Your task to perform on an android device: refresh tabs in the chrome app Image 0: 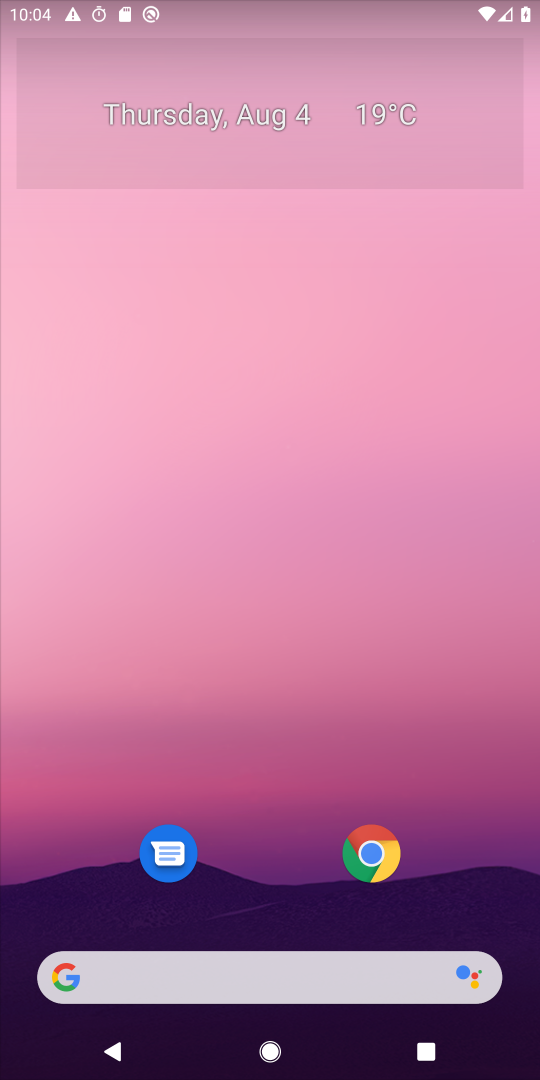
Step 0: click (390, 845)
Your task to perform on an android device: refresh tabs in the chrome app Image 1: 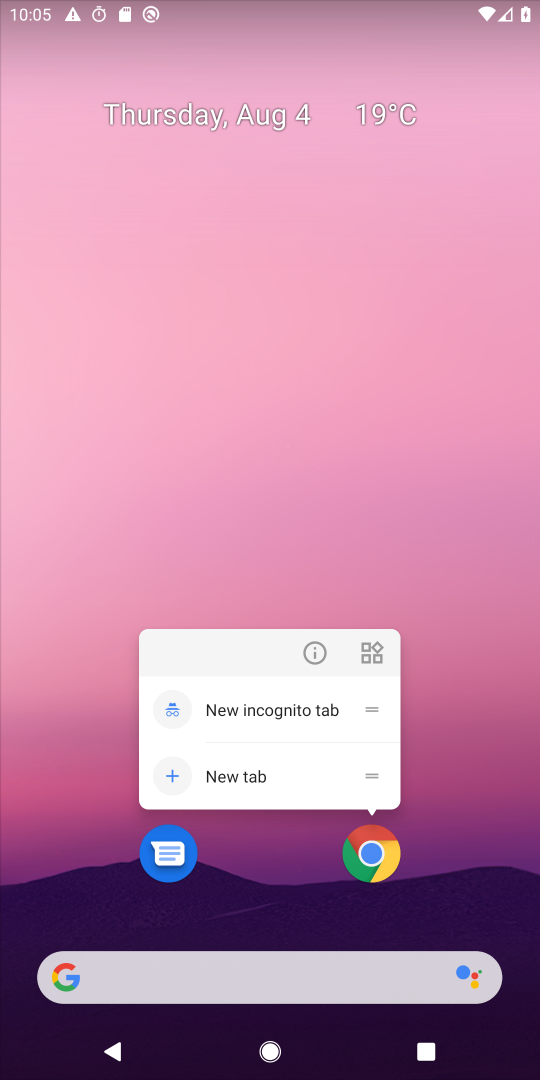
Step 1: click (390, 845)
Your task to perform on an android device: refresh tabs in the chrome app Image 2: 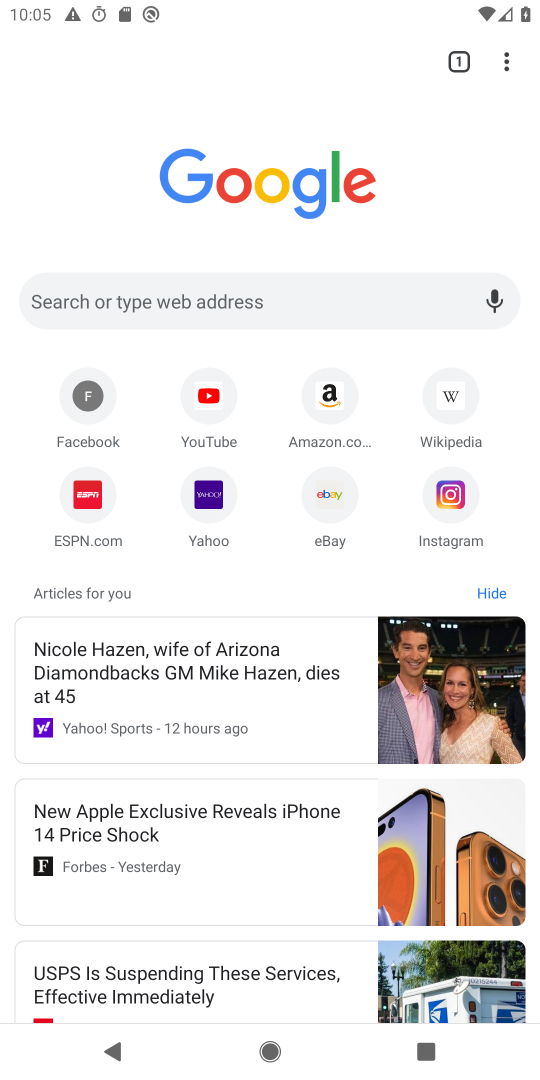
Step 2: click (514, 51)
Your task to perform on an android device: refresh tabs in the chrome app Image 3: 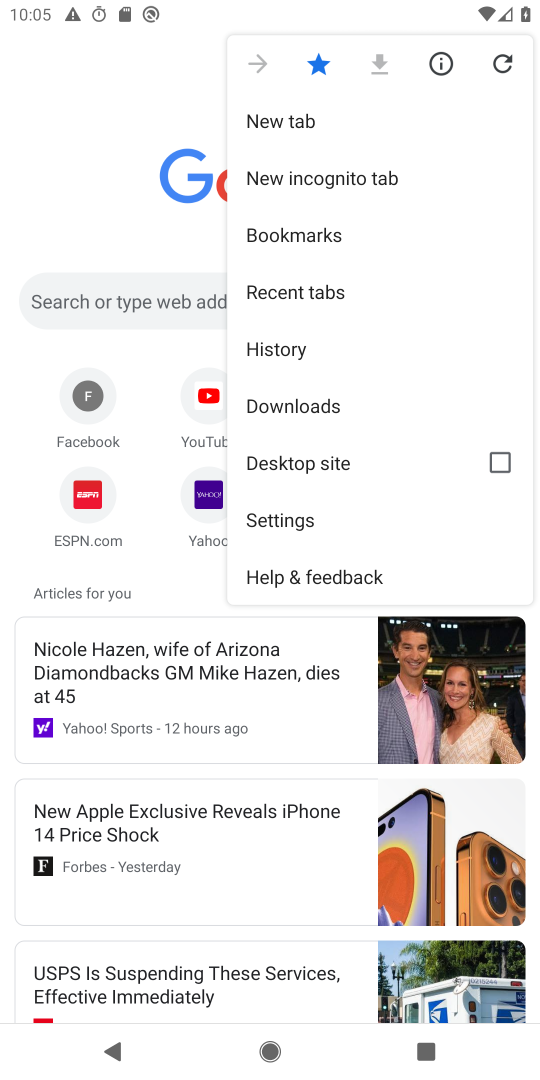
Step 3: click (501, 54)
Your task to perform on an android device: refresh tabs in the chrome app Image 4: 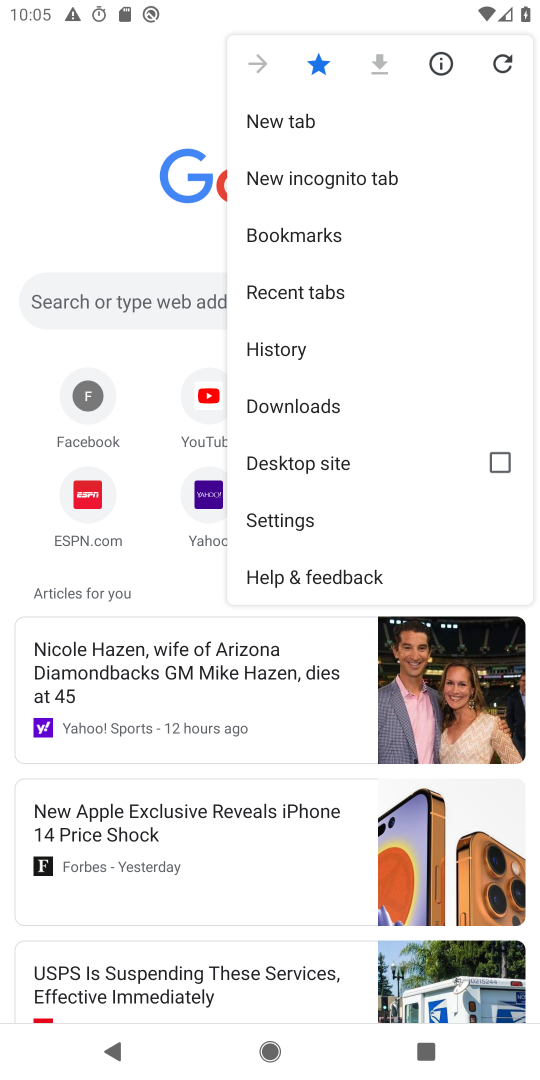
Step 4: click (504, 66)
Your task to perform on an android device: refresh tabs in the chrome app Image 5: 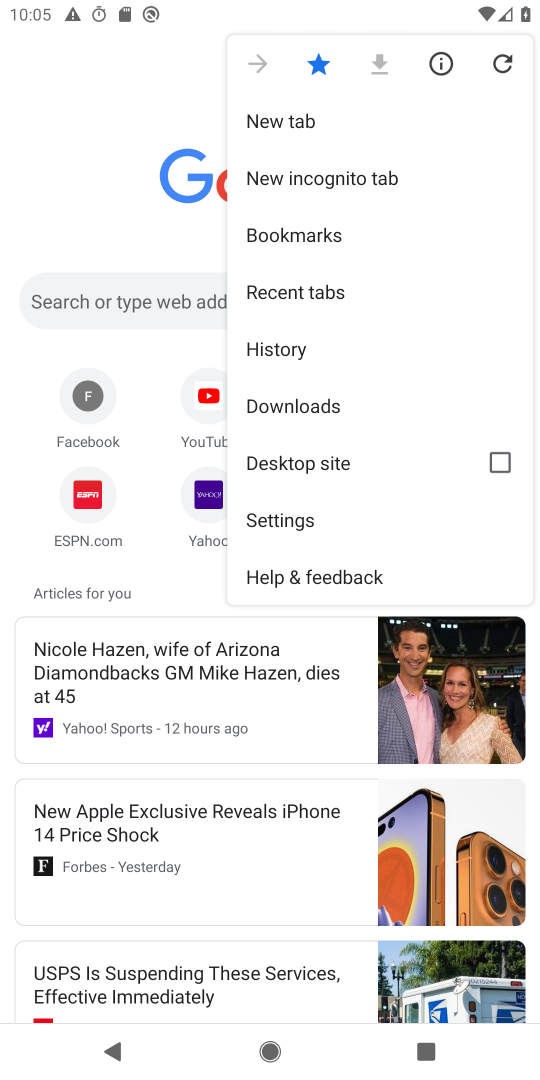
Step 5: click (507, 51)
Your task to perform on an android device: refresh tabs in the chrome app Image 6: 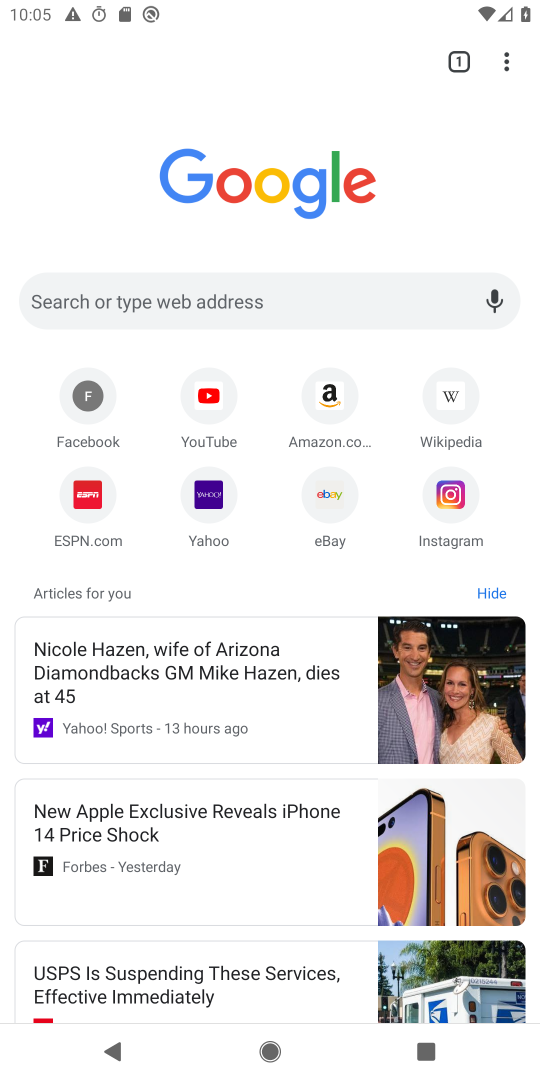
Step 6: task complete